Your task to perform on an android device: Open privacy settings Image 0: 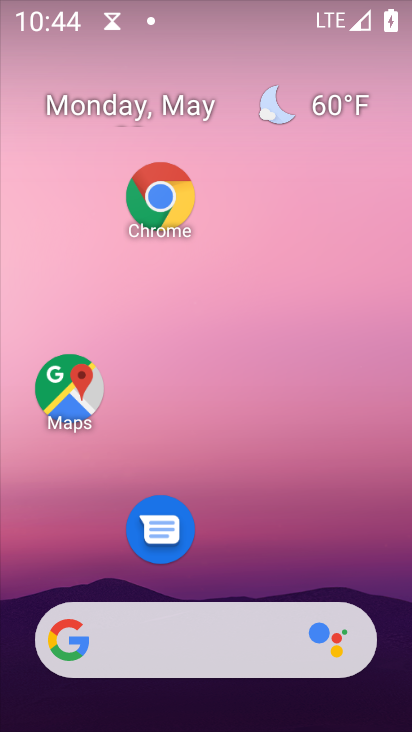
Step 0: drag from (245, 553) to (238, 45)
Your task to perform on an android device: Open privacy settings Image 1: 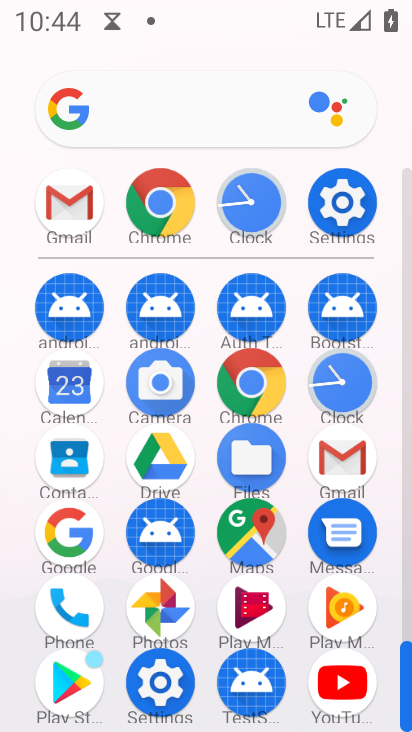
Step 1: click (342, 207)
Your task to perform on an android device: Open privacy settings Image 2: 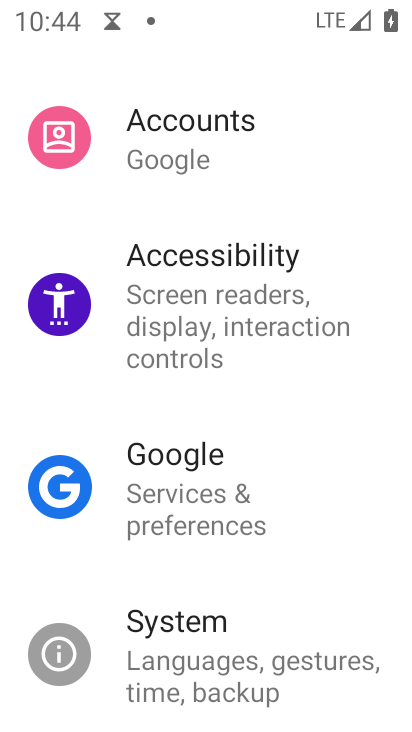
Step 2: drag from (271, 214) to (269, 709)
Your task to perform on an android device: Open privacy settings Image 3: 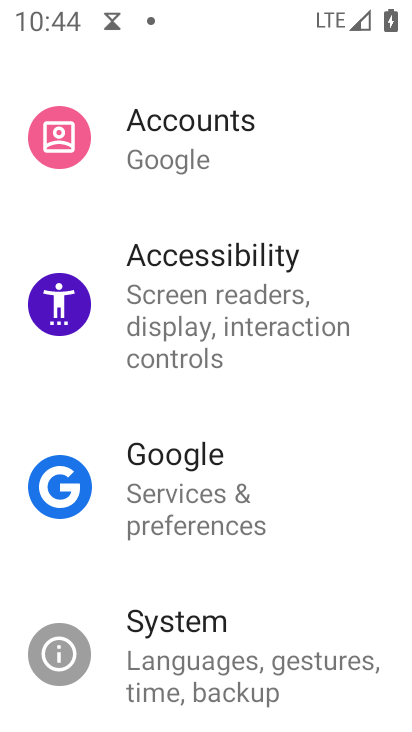
Step 3: drag from (231, 196) to (220, 649)
Your task to perform on an android device: Open privacy settings Image 4: 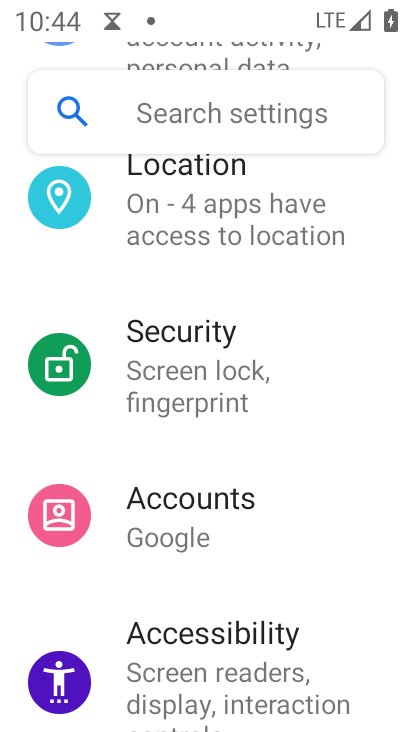
Step 4: drag from (210, 414) to (225, 645)
Your task to perform on an android device: Open privacy settings Image 5: 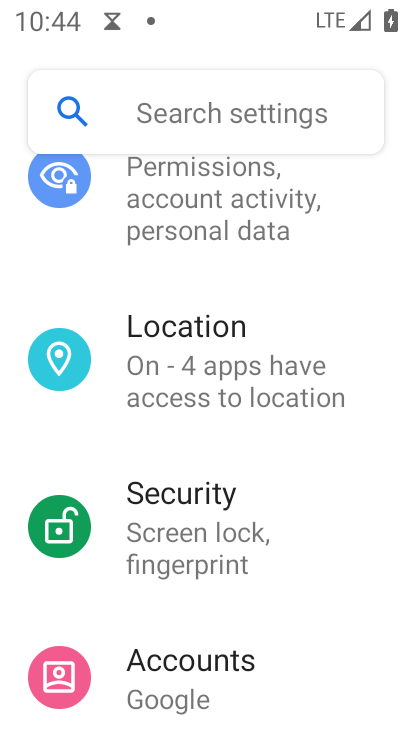
Step 5: drag from (188, 280) to (202, 535)
Your task to perform on an android device: Open privacy settings Image 6: 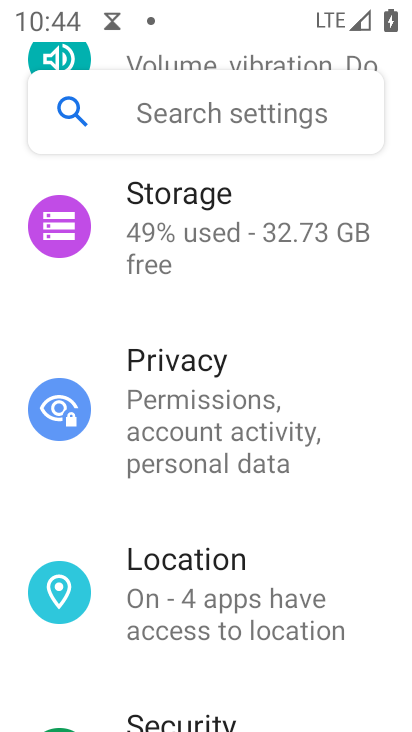
Step 6: drag from (176, 272) to (209, 537)
Your task to perform on an android device: Open privacy settings Image 7: 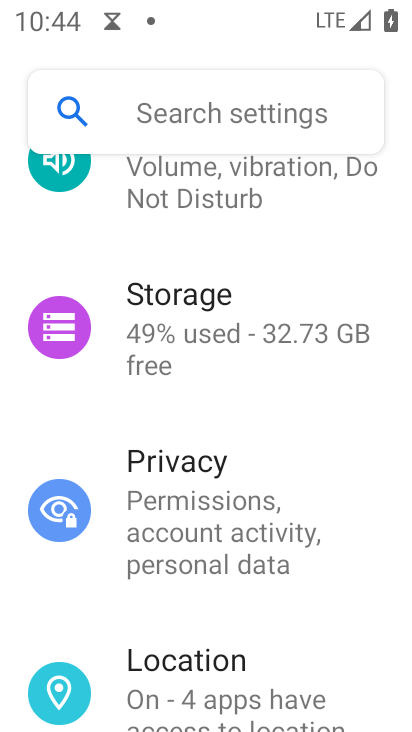
Step 7: click (200, 527)
Your task to perform on an android device: Open privacy settings Image 8: 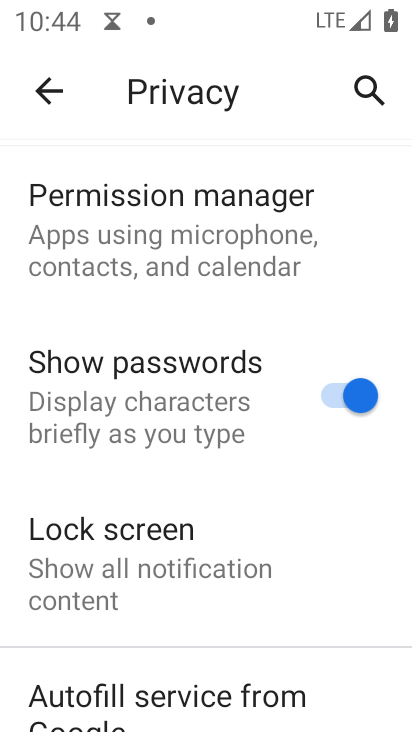
Step 8: task complete